Your task to perform on an android device: Open calendar and show me the fourth week of next month Image 0: 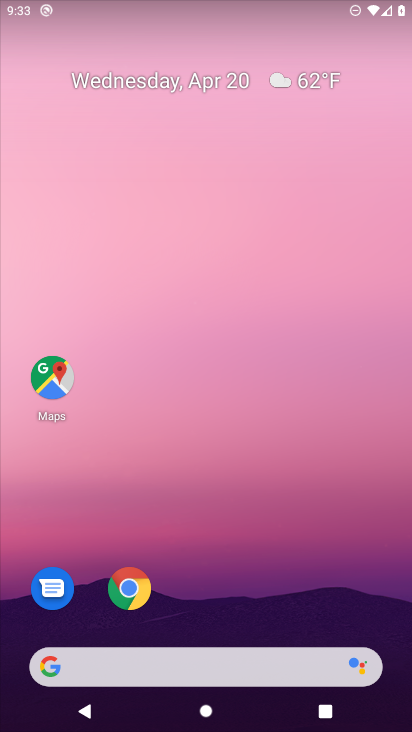
Step 0: drag from (195, 601) to (233, 2)
Your task to perform on an android device: Open calendar and show me the fourth week of next month Image 1: 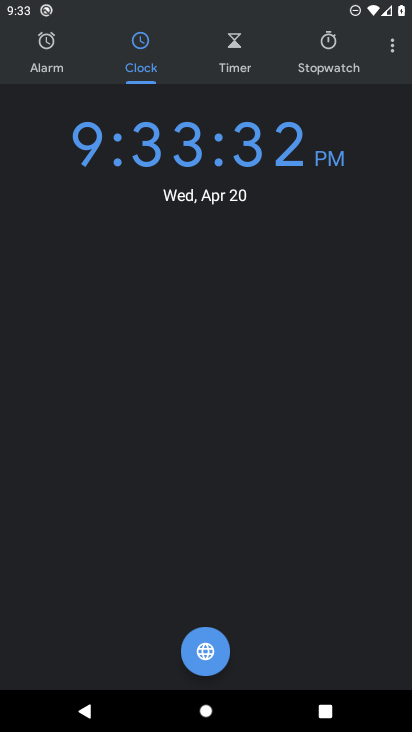
Step 1: press home button
Your task to perform on an android device: Open calendar and show me the fourth week of next month Image 2: 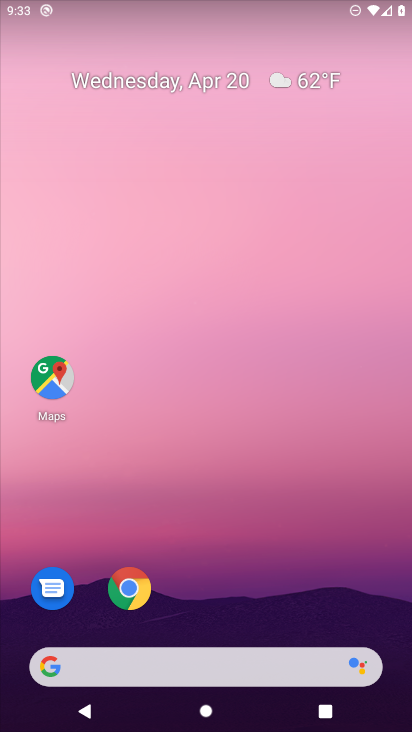
Step 2: drag from (220, 615) to (228, 9)
Your task to perform on an android device: Open calendar and show me the fourth week of next month Image 3: 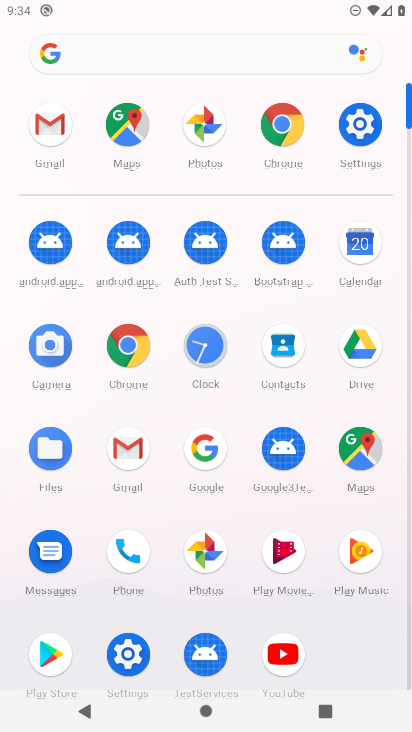
Step 3: click (362, 240)
Your task to perform on an android device: Open calendar and show me the fourth week of next month Image 4: 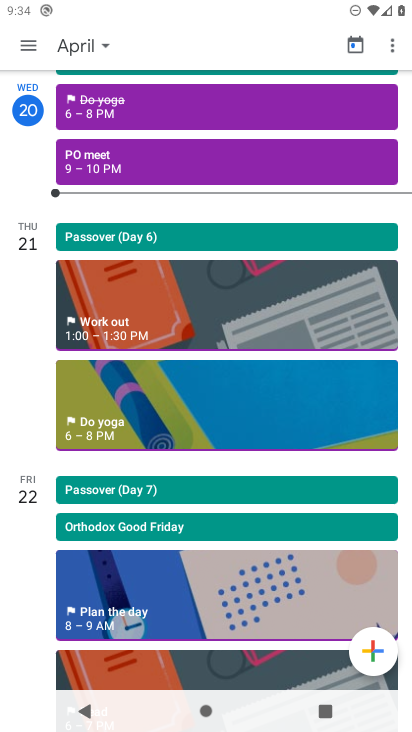
Step 4: click (29, 40)
Your task to perform on an android device: Open calendar and show me the fourth week of next month Image 5: 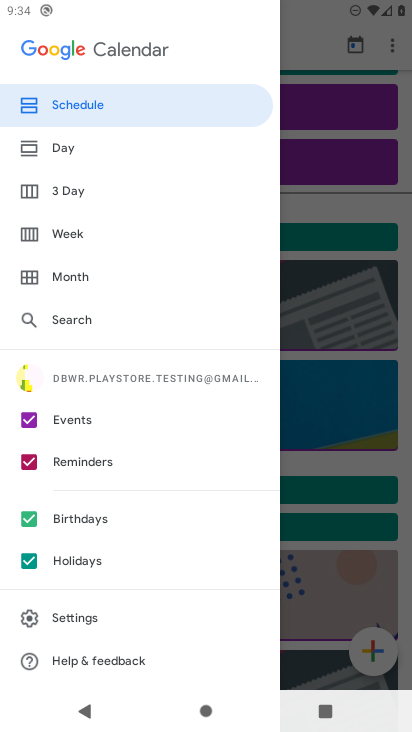
Step 5: click (45, 230)
Your task to perform on an android device: Open calendar and show me the fourth week of next month Image 6: 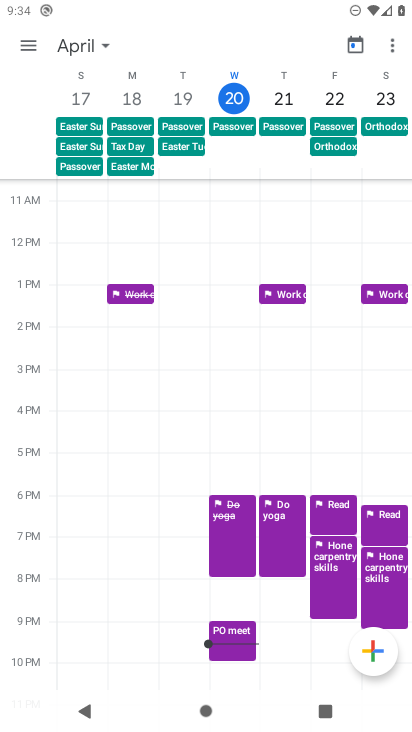
Step 6: drag from (395, 98) to (103, 97)
Your task to perform on an android device: Open calendar and show me the fourth week of next month Image 7: 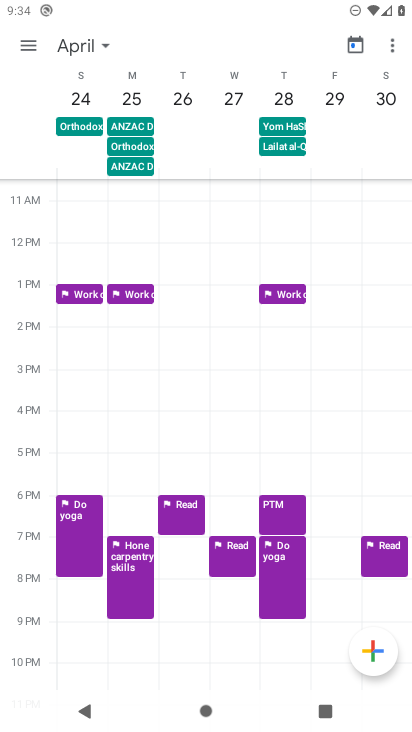
Step 7: drag from (387, 100) to (12, 107)
Your task to perform on an android device: Open calendar and show me the fourth week of next month Image 8: 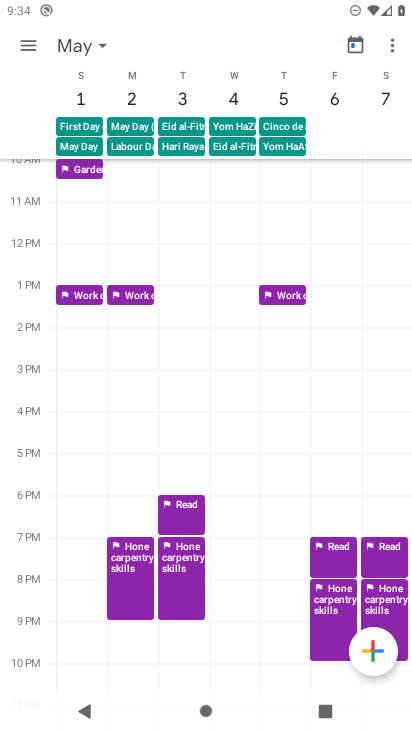
Step 8: drag from (386, 93) to (63, 104)
Your task to perform on an android device: Open calendar and show me the fourth week of next month Image 9: 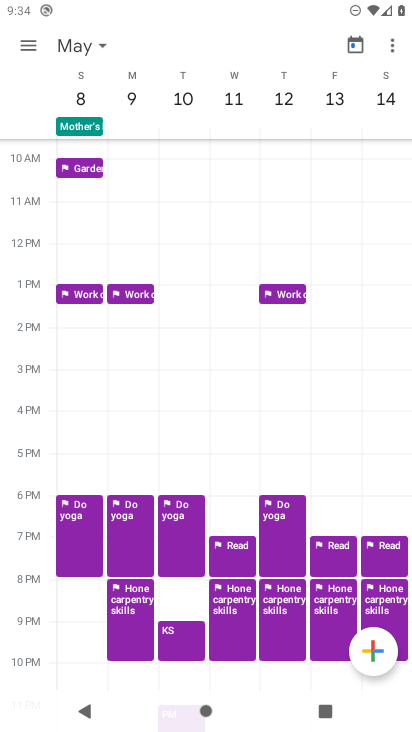
Step 9: drag from (384, 97) to (50, 98)
Your task to perform on an android device: Open calendar and show me the fourth week of next month Image 10: 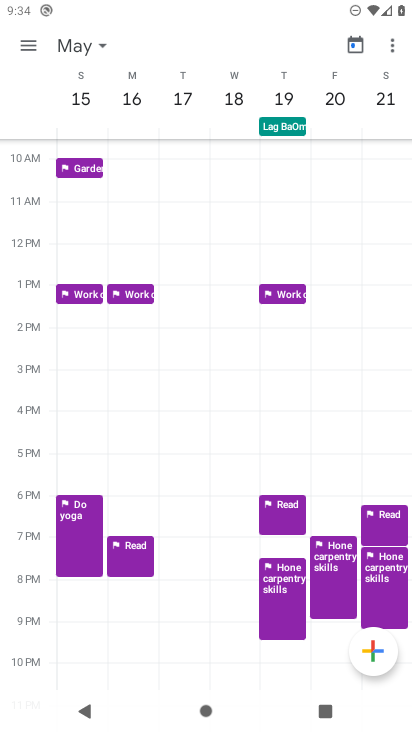
Step 10: drag from (382, 100) to (44, 108)
Your task to perform on an android device: Open calendar and show me the fourth week of next month Image 11: 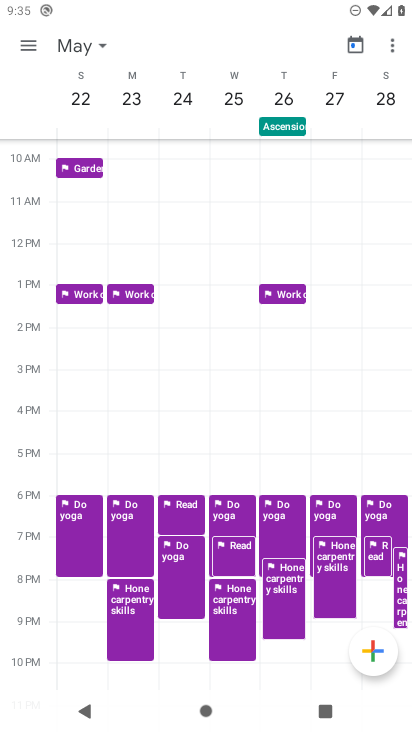
Step 11: click (77, 99)
Your task to perform on an android device: Open calendar and show me the fourth week of next month Image 12: 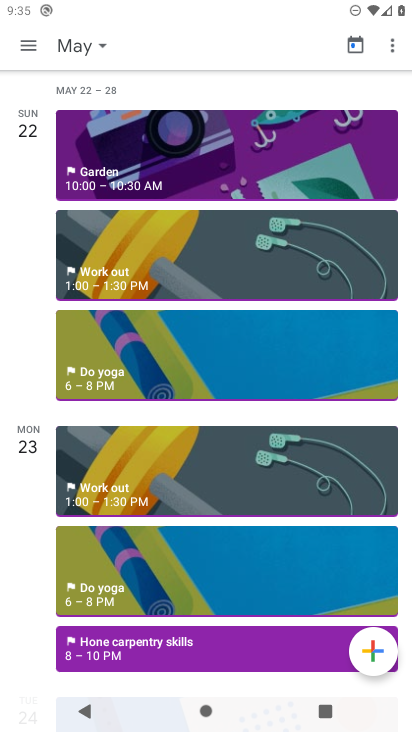
Step 12: task complete